Your task to perform on an android device: turn smart compose on in the gmail app Image 0: 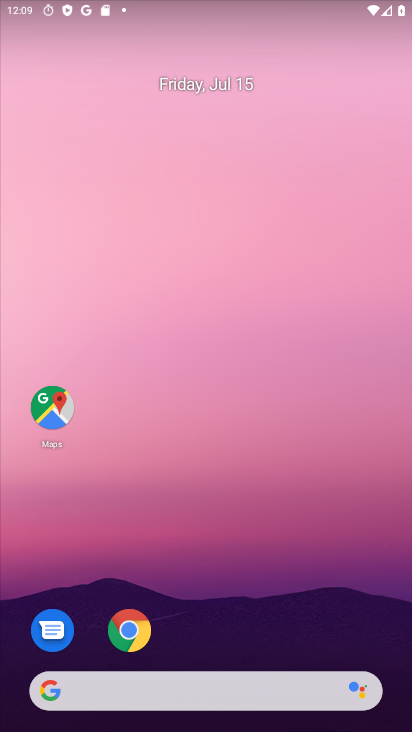
Step 0: drag from (212, 595) to (261, 190)
Your task to perform on an android device: turn smart compose on in the gmail app Image 1: 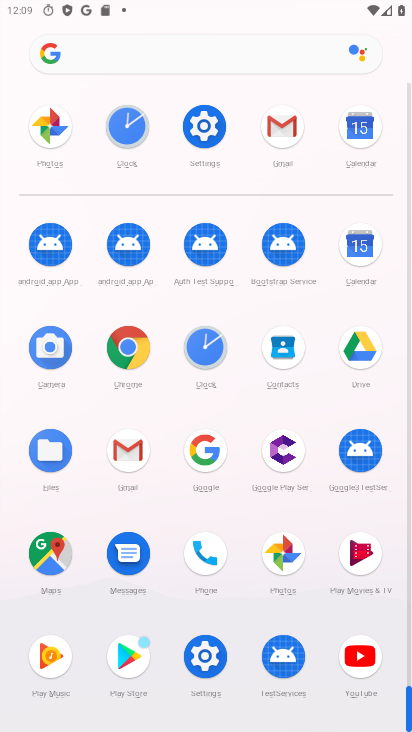
Step 1: click (125, 460)
Your task to perform on an android device: turn smart compose on in the gmail app Image 2: 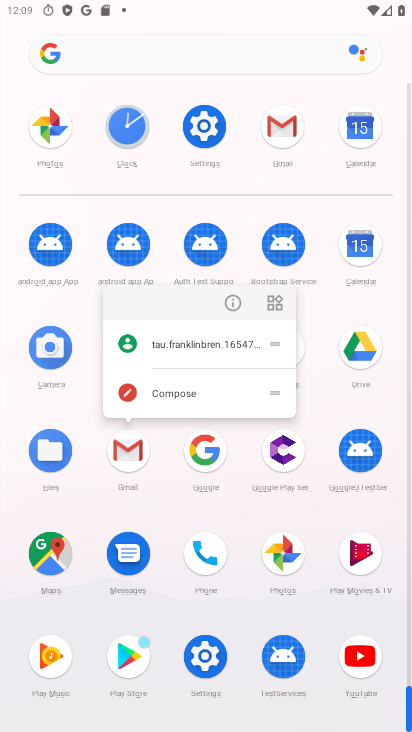
Step 2: click (231, 306)
Your task to perform on an android device: turn smart compose on in the gmail app Image 3: 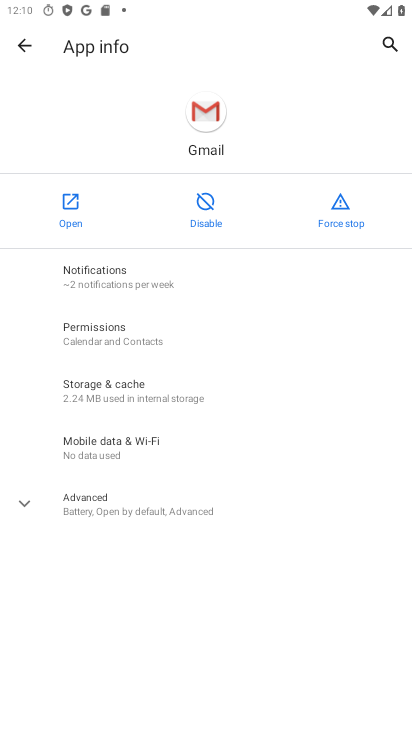
Step 3: click (69, 202)
Your task to perform on an android device: turn smart compose on in the gmail app Image 4: 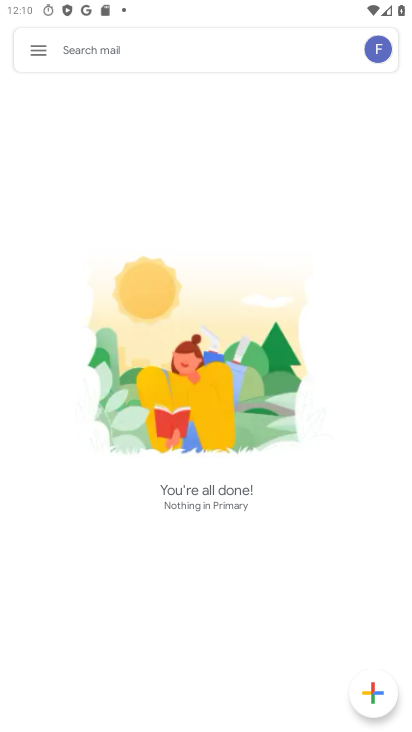
Step 4: drag from (182, 529) to (205, 316)
Your task to perform on an android device: turn smart compose on in the gmail app Image 5: 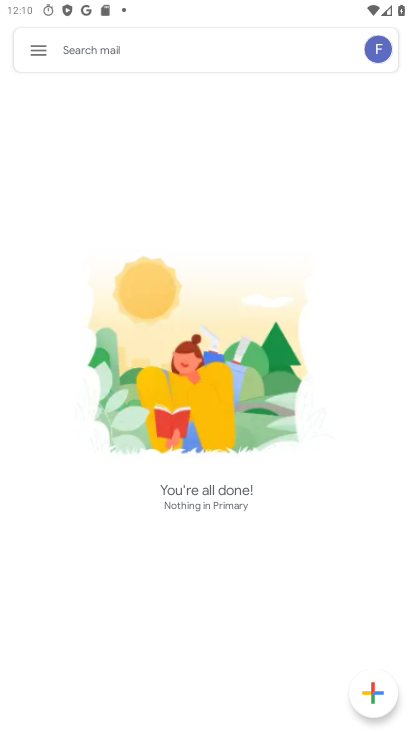
Step 5: click (34, 56)
Your task to perform on an android device: turn smart compose on in the gmail app Image 6: 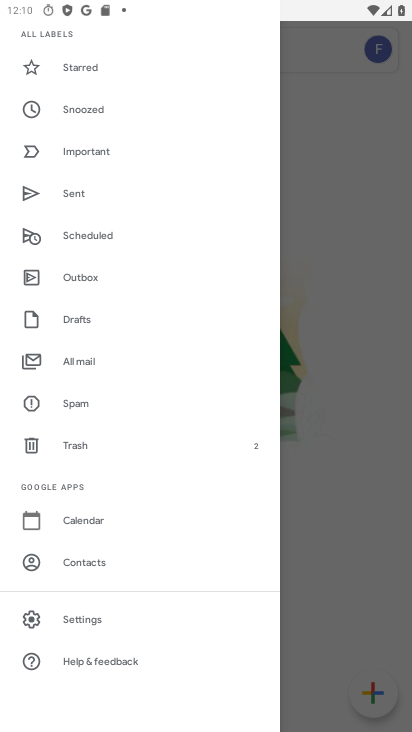
Step 6: drag from (115, 509) to (143, 257)
Your task to perform on an android device: turn smart compose on in the gmail app Image 7: 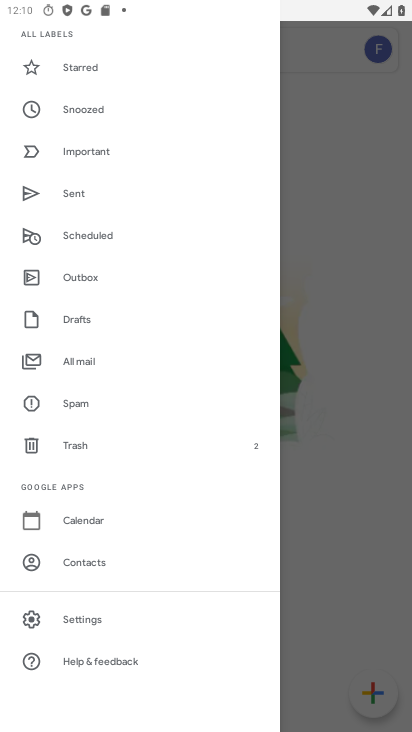
Step 7: click (91, 614)
Your task to perform on an android device: turn smart compose on in the gmail app Image 8: 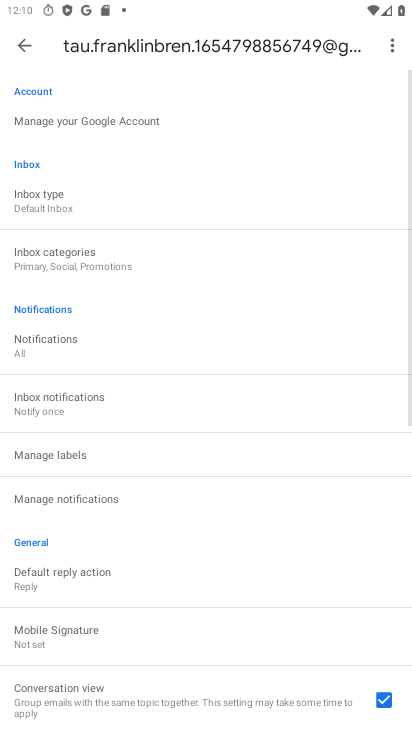
Step 8: task complete